Your task to perform on an android device: delete the emails in spam in the gmail app Image 0: 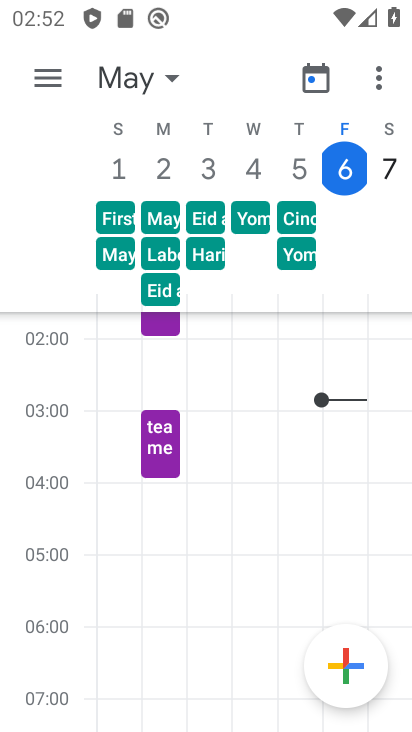
Step 0: press home button
Your task to perform on an android device: delete the emails in spam in the gmail app Image 1: 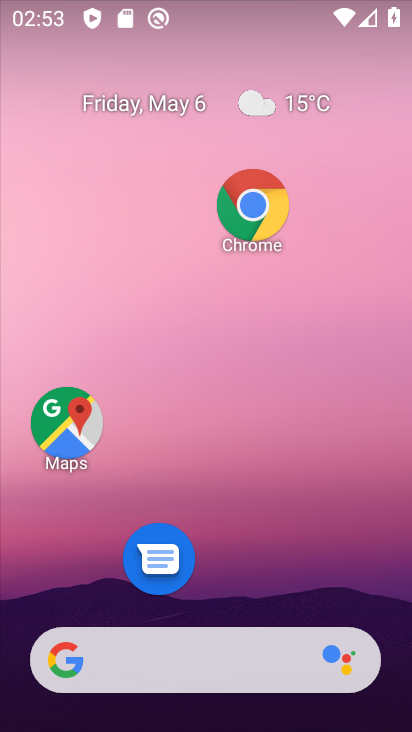
Step 1: drag from (280, 573) to (276, 278)
Your task to perform on an android device: delete the emails in spam in the gmail app Image 2: 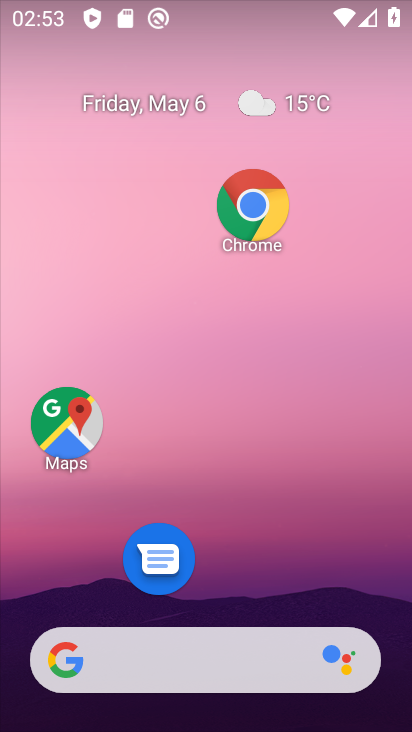
Step 2: drag from (285, 601) to (307, 136)
Your task to perform on an android device: delete the emails in spam in the gmail app Image 3: 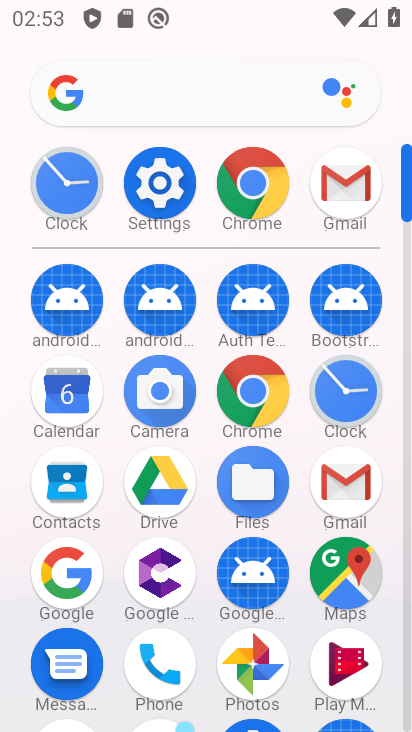
Step 3: click (325, 471)
Your task to perform on an android device: delete the emails in spam in the gmail app Image 4: 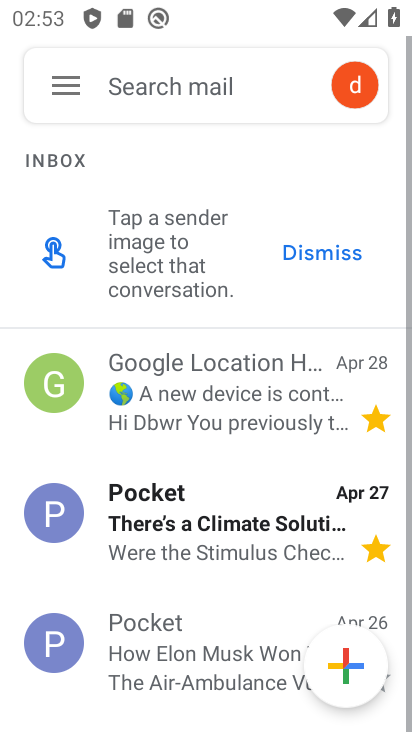
Step 4: task complete